Your task to perform on an android device: add a label to a message in the gmail app Image 0: 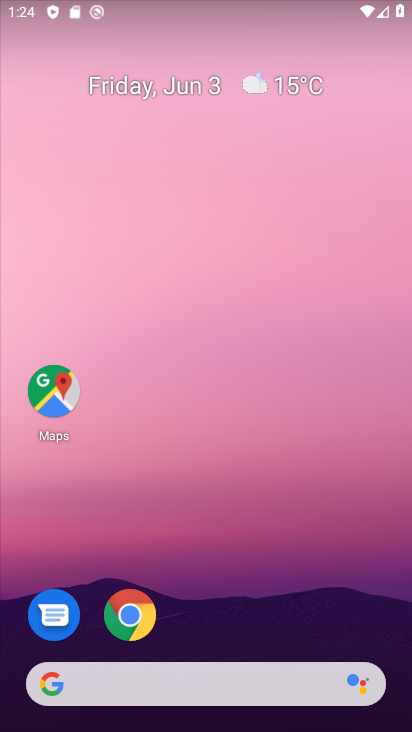
Step 0: drag from (205, 585) to (212, 129)
Your task to perform on an android device: add a label to a message in the gmail app Image 1: 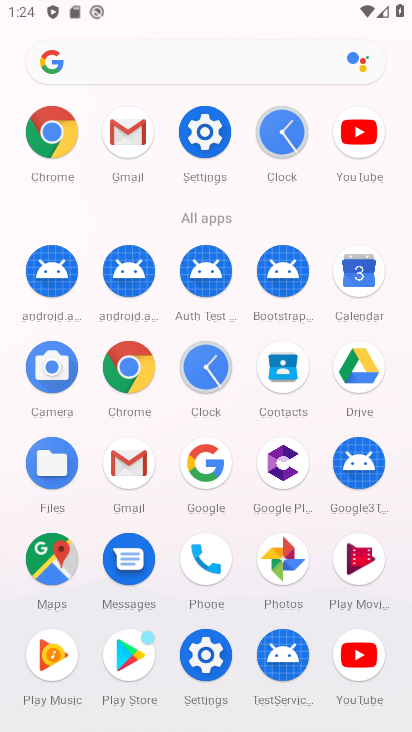
Step 1: click (122, 455)
Your task to perform on an android device: add a label to a message in the gmail app Image 2: 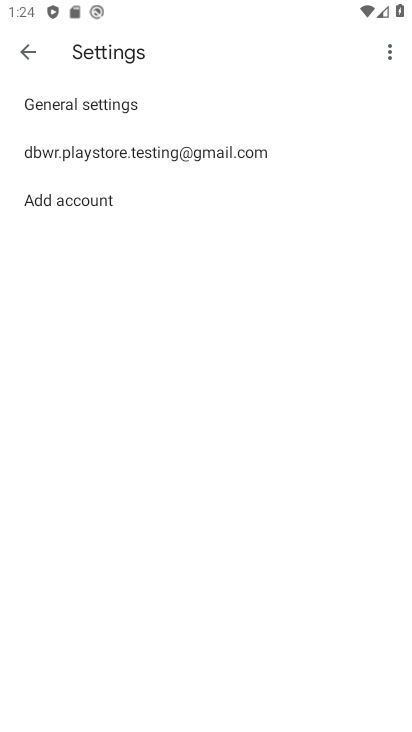
Step 2: click (13, 59)
Your task to perform on an android device: add a label to a message in the gmail app Image 3: 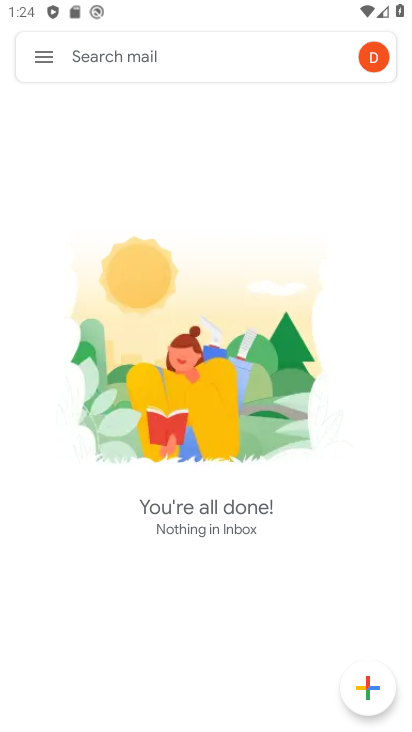
Step 3: task complete